Your task to perform on an android device: Open CNN.com Image 0: 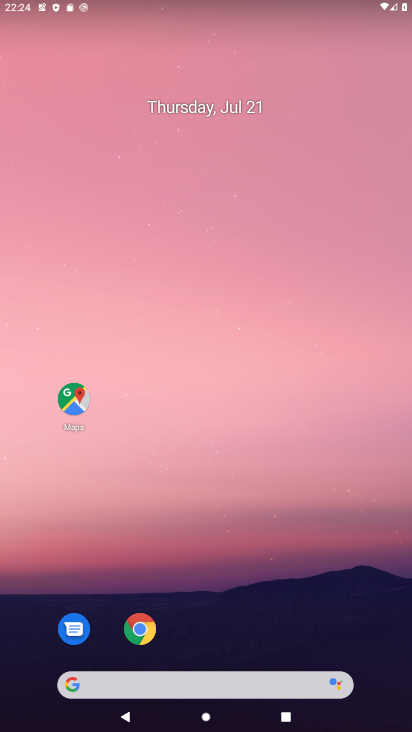
Step 0: click (70, 678)
Your task to perform on an android device: Open CNN.com Image 1: 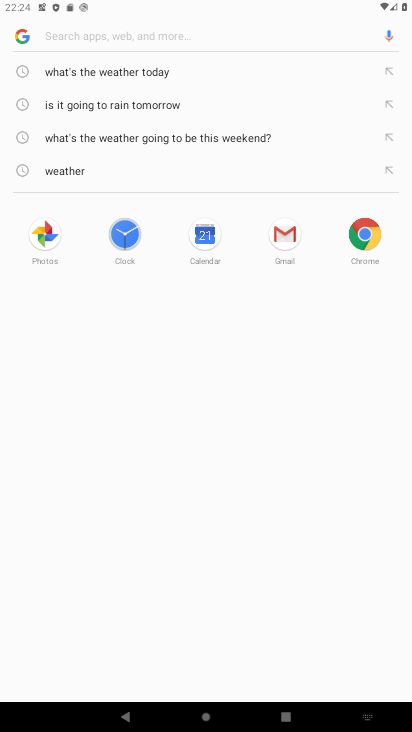
Step 1: type "CNN.com"
Your task to perform on an android device: Open CNN.com Image 2: 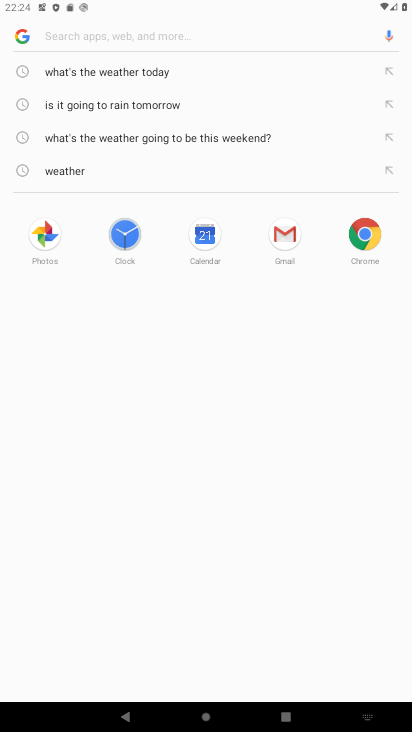
Step 2: click (67, 34)
Your task to perform on an android device: Open CNN.com Image 3: 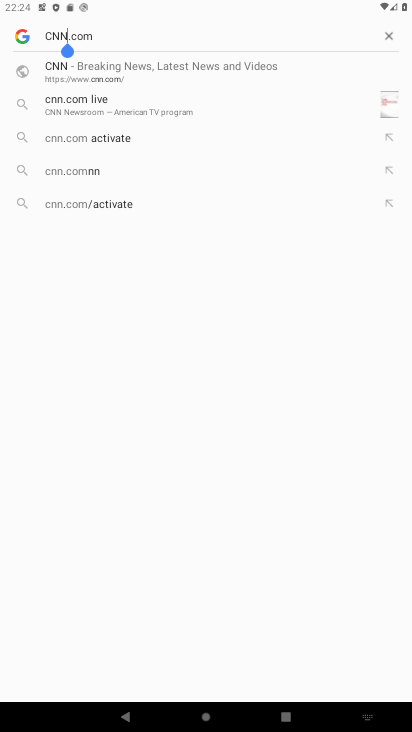
Step 3: press enter
Your task to perform on an android device: Open CNN.com Image 4: 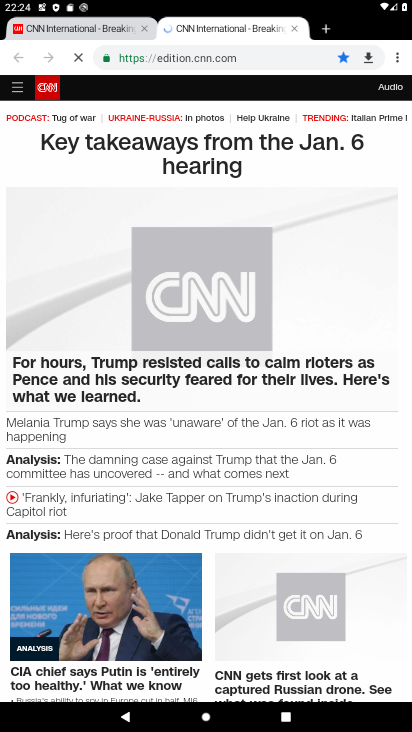
Step 4: task complete